Your task to perform on an android device: change notification settings in the gmail app Image 0: 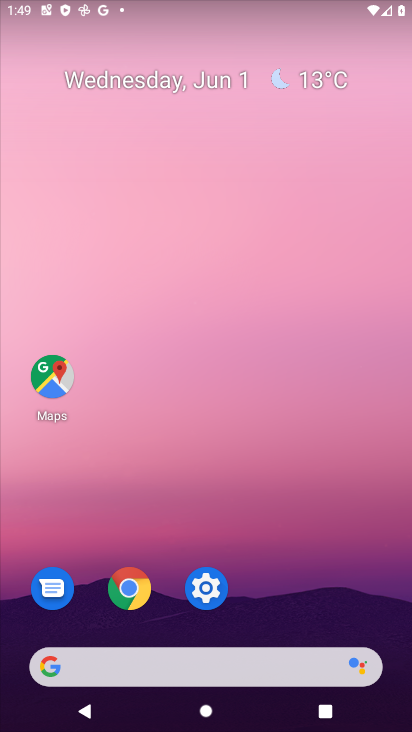
Step 0: drag from (226, 668) to (256, 153)
Your task to perform on an android device: change notification settings in the gmail app Image 1: 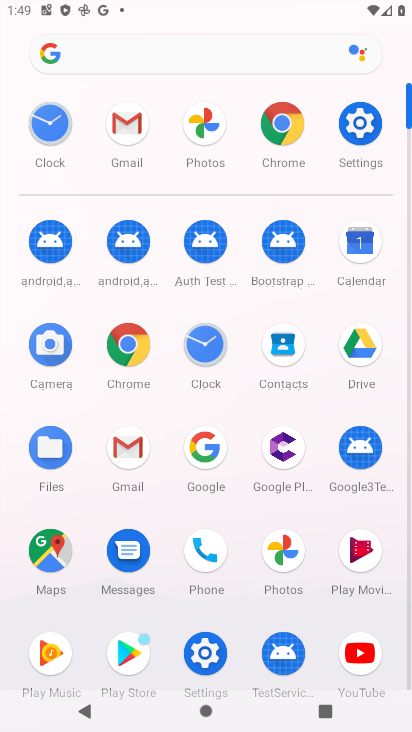
Step 1: click (132, 447)
Your task to perform on an android device: change notification settings in the gmail app Image 2: 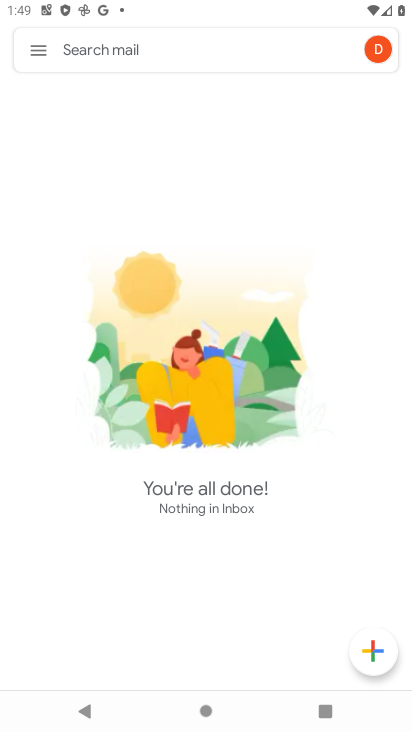
Step 2: click (36, 49)
Your task to perform on an android device: change notification settings in the gmail app Image 3: 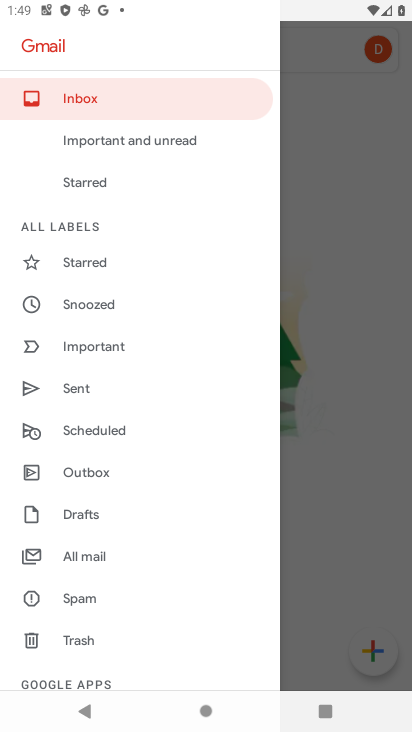
Step 3: drag from (114, 566) to (176, 342)
Your task to perform on an android device: change notification settings in the gmail app Image 4: 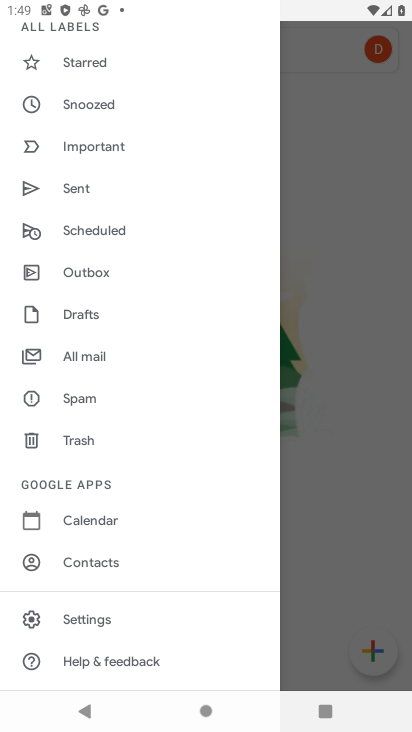
Step 4: click (96, 617)
Your task to perform on an android device: change notification settings in the gmail app Image 5: 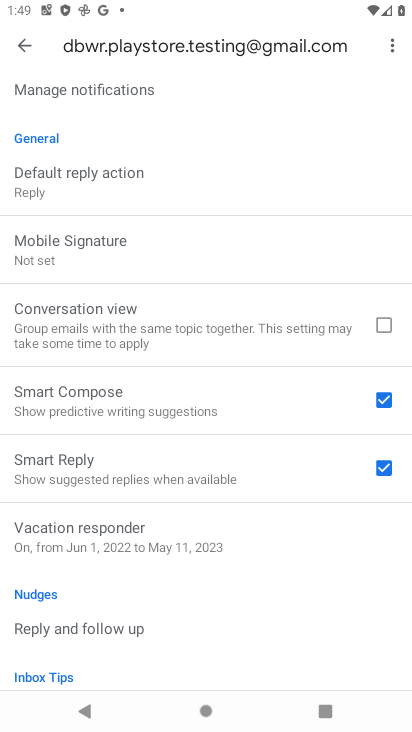
Step 5: drag from (84, 172) to (100, 518)
Your task to perform on an android device: change notification settings in the gmail app Image 6: 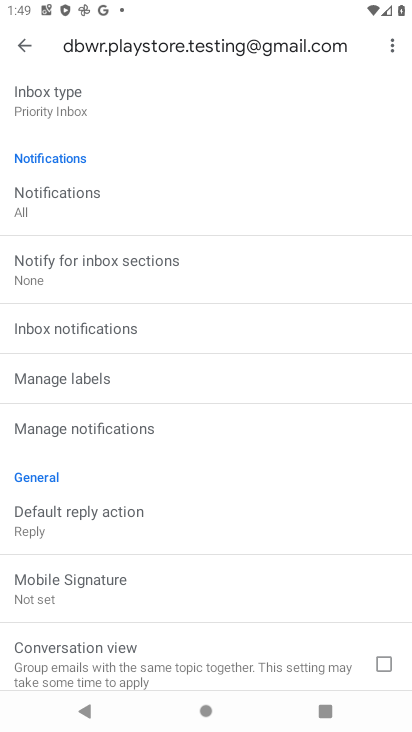
Step 6: click (57, 194)
Your task to perform on an android device: change notification settings in the gmail app Image 7: 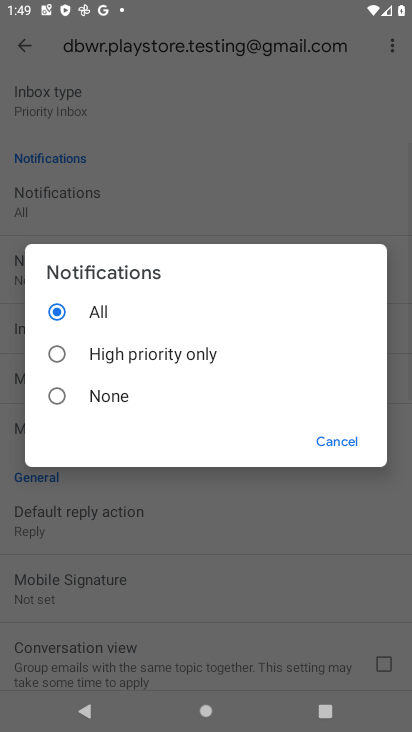
Step 7: click (94, 358)
Your task to perform on an android device: change notification settings in the gmail app Image 8: 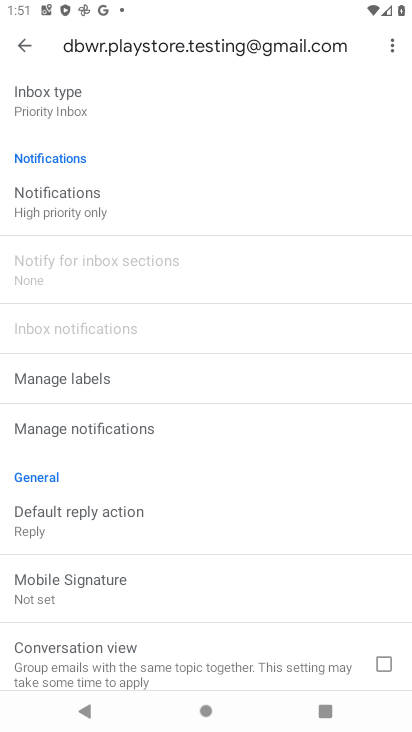
Step 8: task complete